Your task to perform on an android device: Open display settings Image 0: 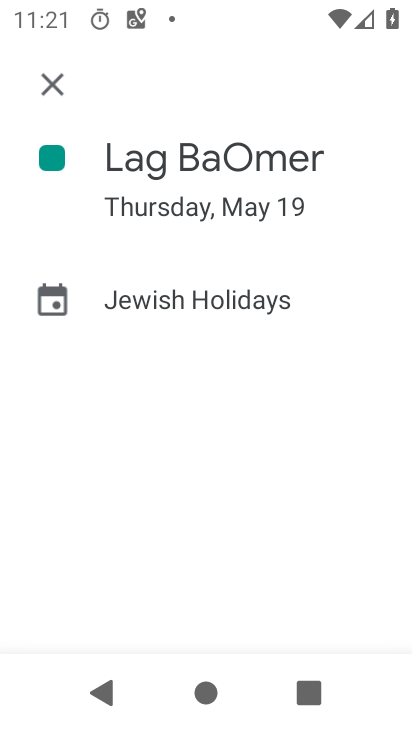
Step 0: press home button
Your task to perform on an android device: Open display settings Image 1: 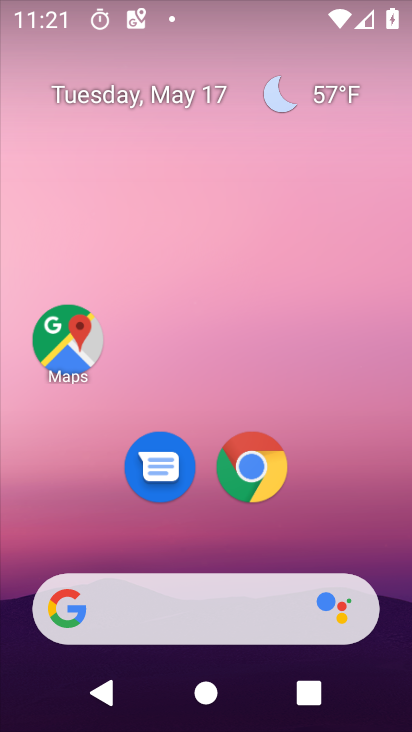
Step 1: drag from (190, 568) to (210, 208)
Your task to perform on an android device: Open display settings Image 2: 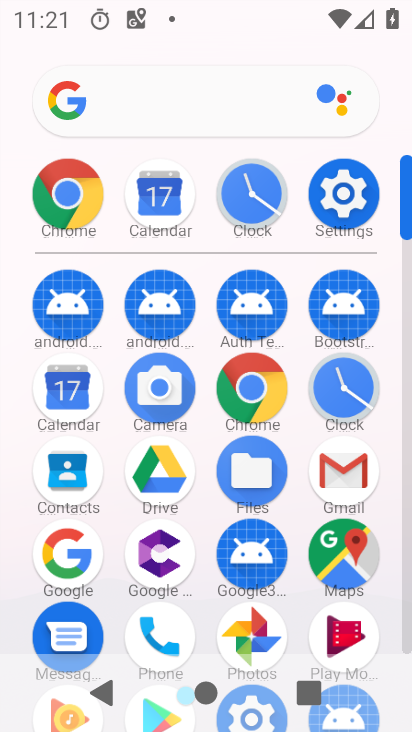
Step 2: click (345, 199)
Your task to perform on an android device: Open display settings Image 3: 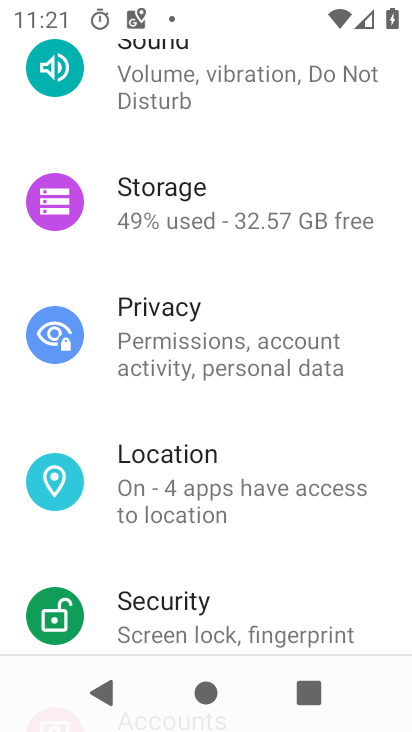
Step 3: drag from (208, 603) to (224, 244)
Your task to perform on an android device: Open display settings Image 4: 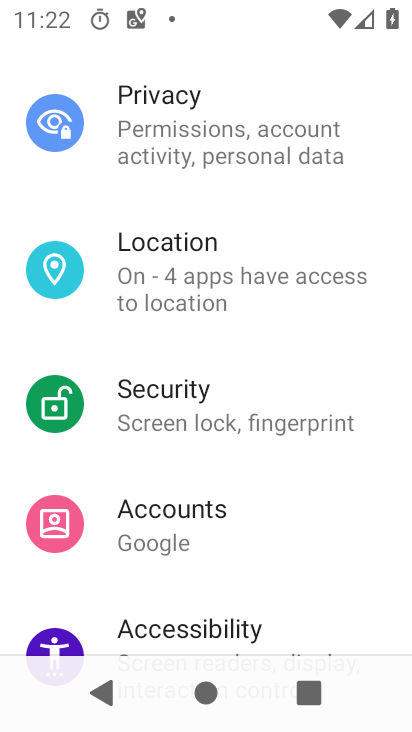
Step 4: drag from (196, 594) to (224, 260)
Your task to perform on an android device: Open display settings Image 5: 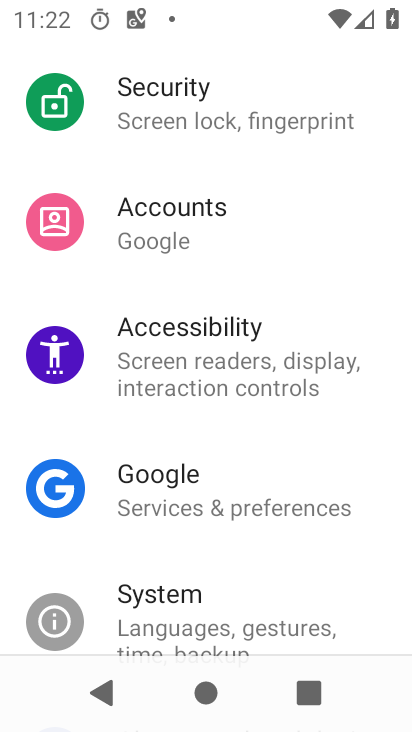
Step 5: drag from (206, 589) to (234, 264)
Your task to perform on an android device: Open display settings Image 6: 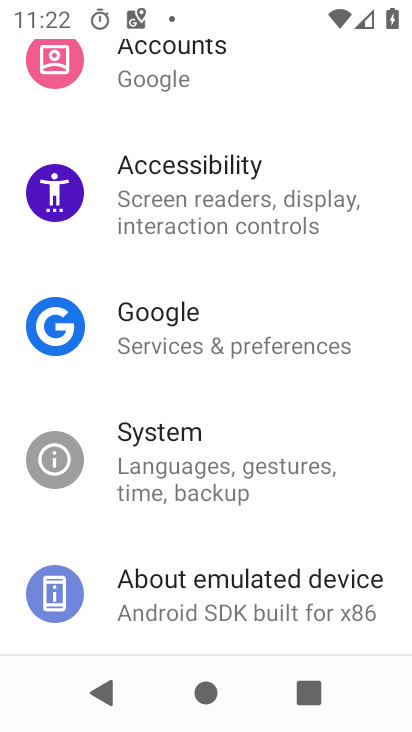
Step 6: drag from (204, 118) to (194, 577)
Your task to perform on an android device: Open display settings Image 7: 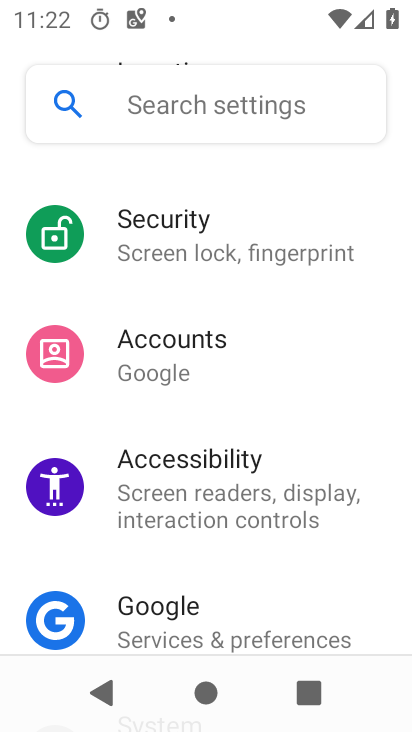
Step 7: drag from (207, 159) to (246, 505)
Your task to perform on an android device: Open display settings Image 8: 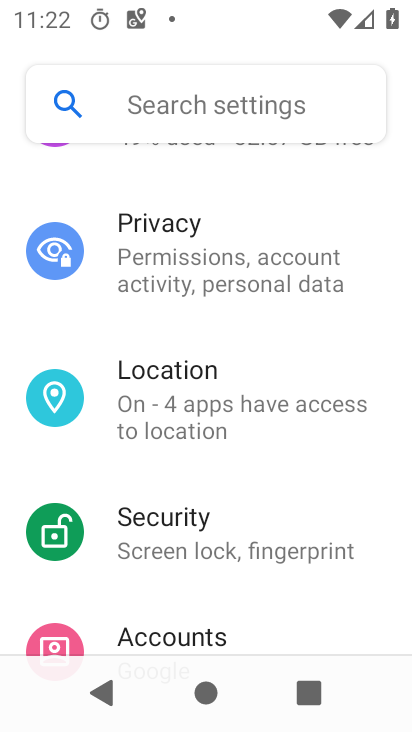
Step 8: drag from (203, 178) to (233, 658)
Your task to perform on an android device: Open display settings Image 9: 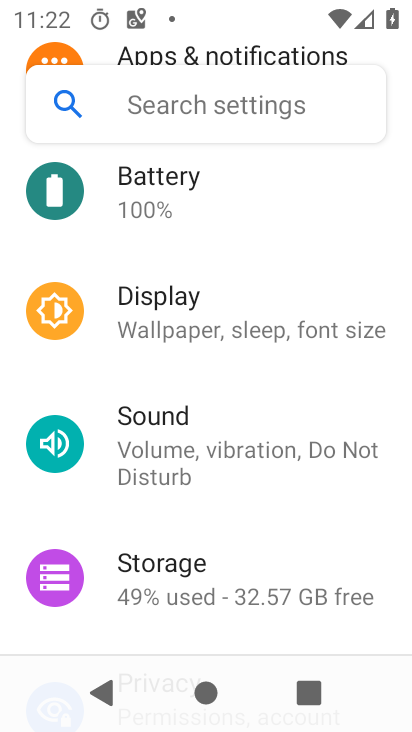
Step 9: click (209, 317)
Your task to perform on an android device: Open display settings Image 10: 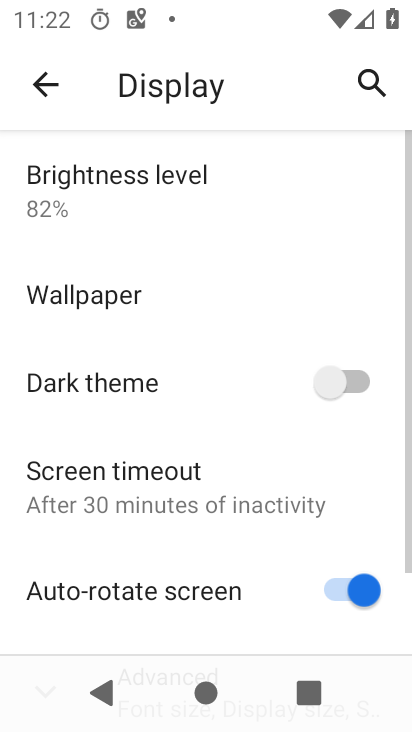
Step 10: drag from (198, 619) to (206, 277)
Your task to perform on an android device: Open display settings Image 11: 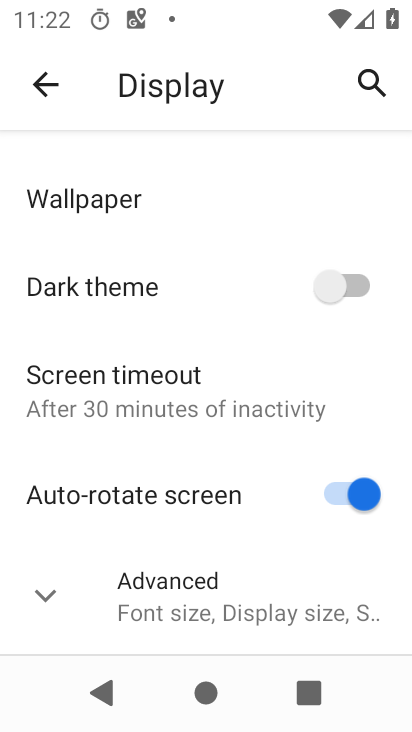
Step 11: click (178, 597)
Your task to perform on an android device: Open display settings Image 12: 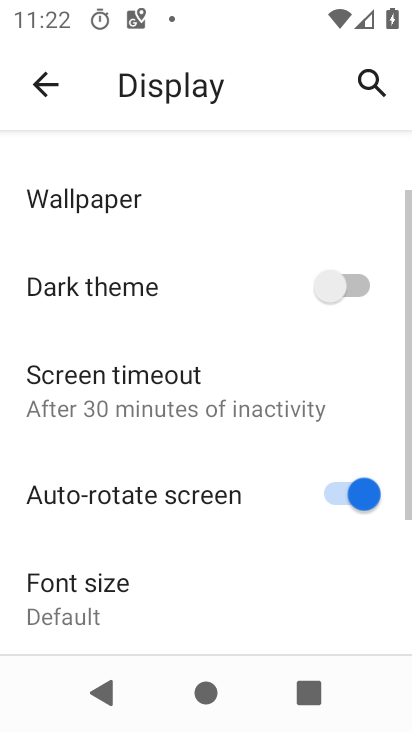
Step 12: task complete